Your task to perform on an android device: Do I have any events today? Image 0: 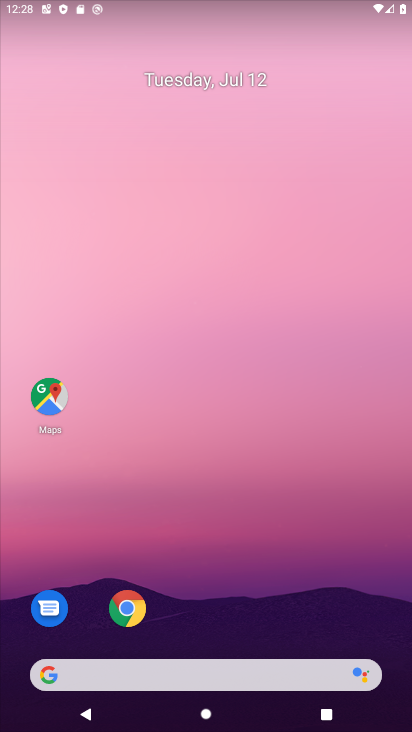
Step 0: click (187, 89)
Your task to perform on an android device: Do I have any events today? Image 1: 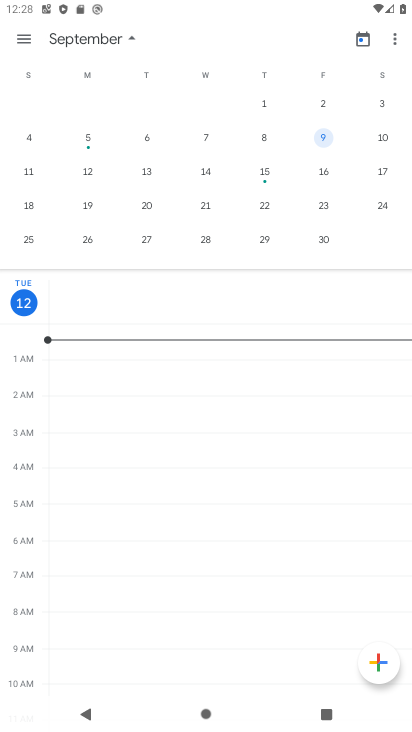
Step 1: click (75, 23)
Your task to perform on an android device: Do I have any events today? Image 2: 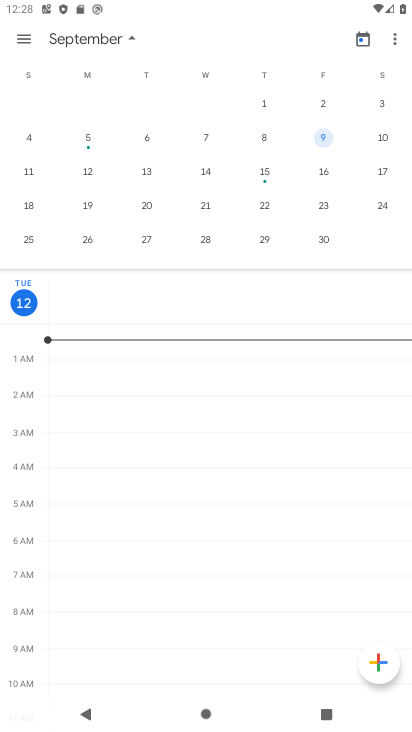
Step 2: click (85, 35)
Your task to perform on an android device: Do I have any events today? Image 3: 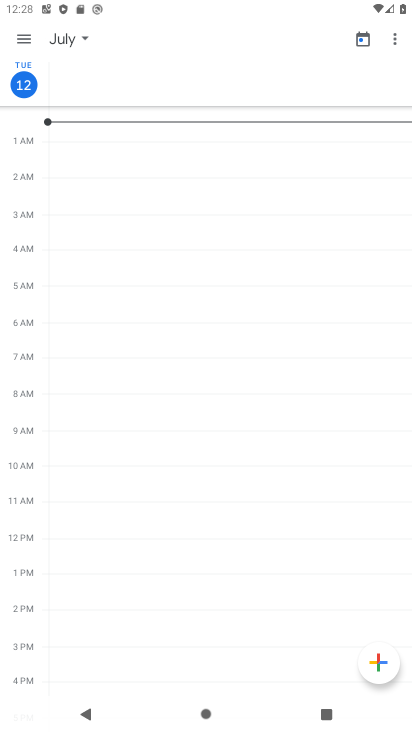
Step 3: click (85, 35)
Your task to perform on an android device: Do I have any events today? Image 4: 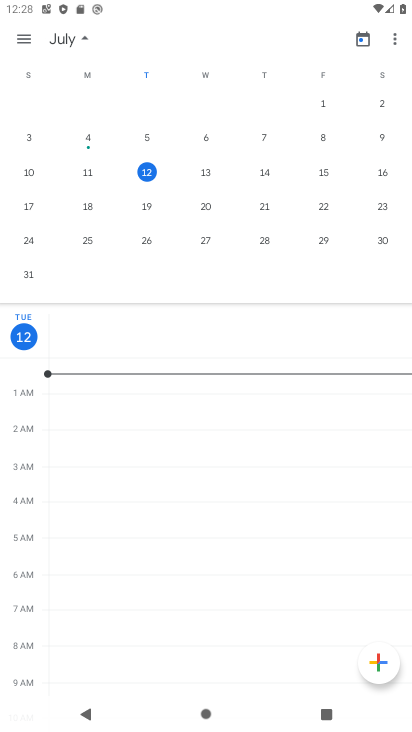
Step 4: task complete